Your task to perform on an android device: Open Chrome and go to settings Image 0: 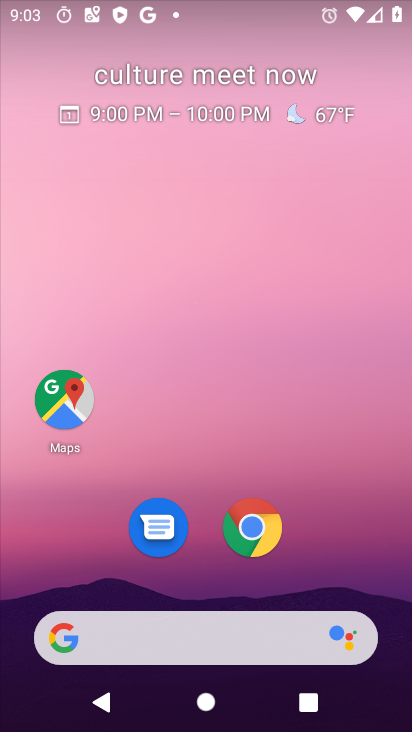
Step 0: click (250, 539)
Your task to perform on an android device: Open Chrome and go to settings Image 1: 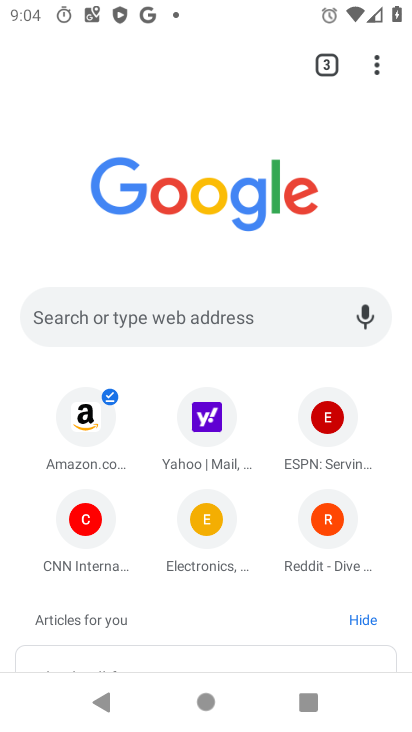
Step 1: click (377, 72)
Your task to perform on an android device: Open Chrome and go to settings Image 2: 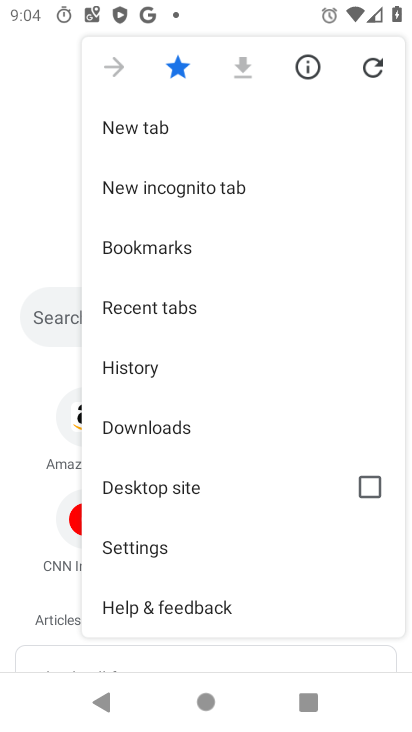
Step 2: click (149, 549)
Your task to perform on an android device: Open Chrome and go to settings Image 3: 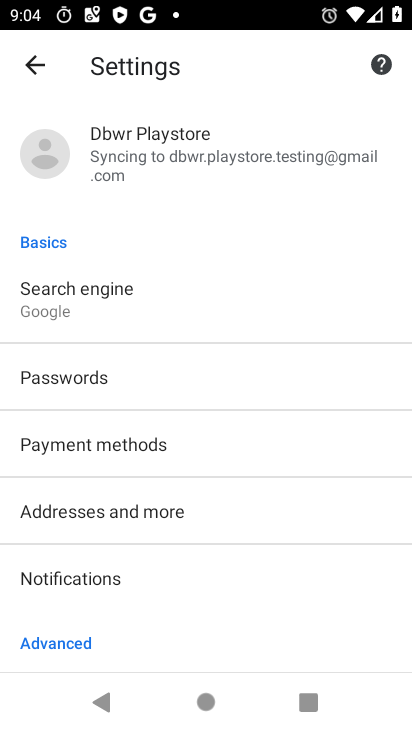
Step 3: task complete